Your task to perform on an android device: Search for vegetarian restaurants on Maps Image 0: 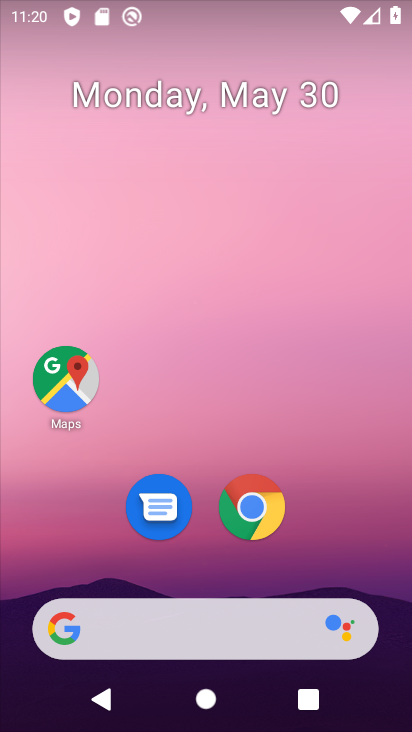
Step 0: click (52, 379)
Your task to perform on an android device: Search for vegetarian restaurants on Maps Image 1: 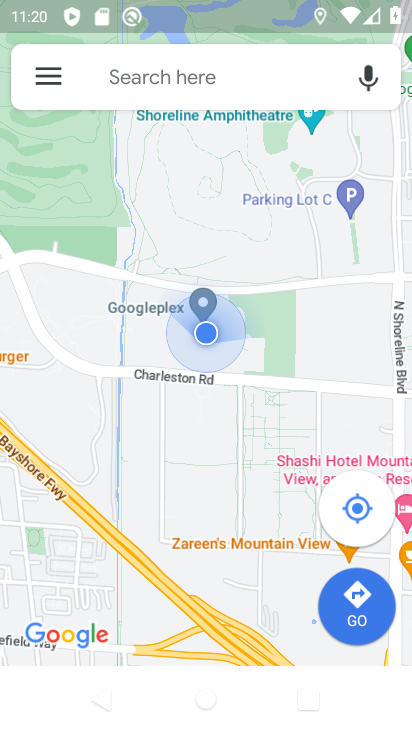
Step 1: type "vegetarian restaurants"
Your task to perform on an android device: Search for vegetarian restaurants on Maps Image 2: 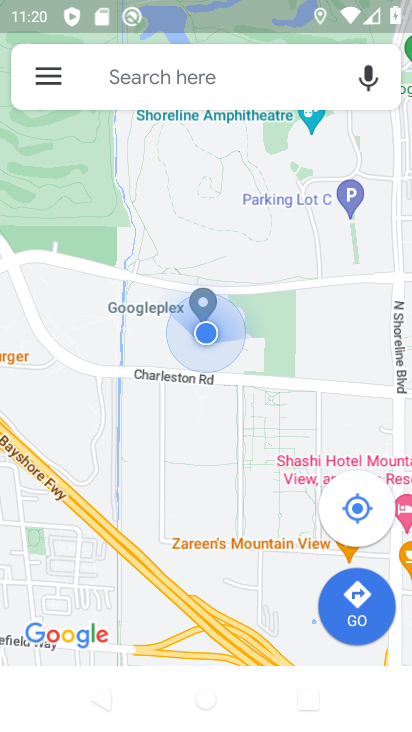
Step 2: click (217, 70)
Your task to perform on an android device: Search for vegetarian restaurants on Maps Image 3: 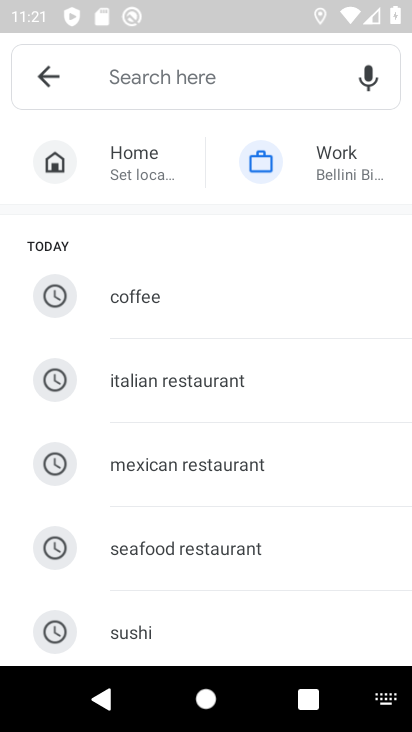
Step 3: type "vegetarian restaurants"
Your task to perform on an android device: Search for vegetarian restaurants on Maps Image 4: 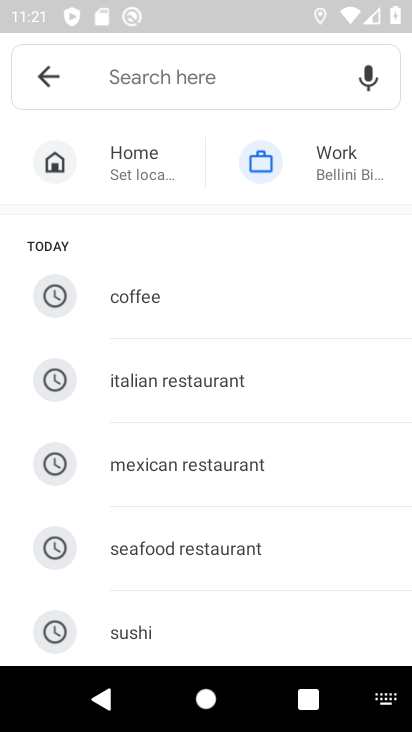
Step 4: click (179, 73)
Your task to perform on an android device: Search for vegetarian restaurants on Maps Image 5: 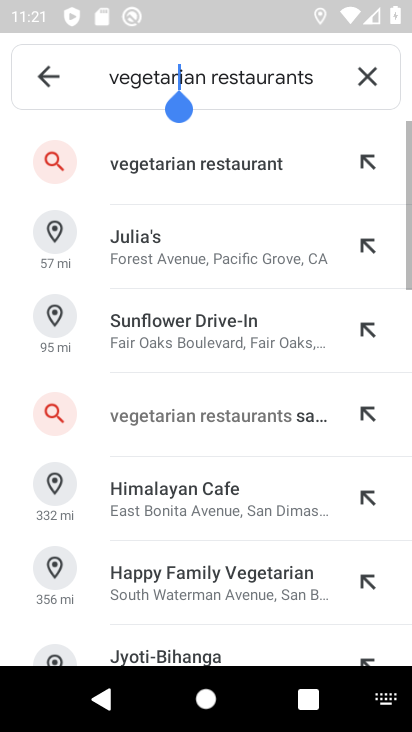
Step 5: click (187, 162)
Your task to perform on an android device: Search for vegetarian restaurants on Maps Image 6: 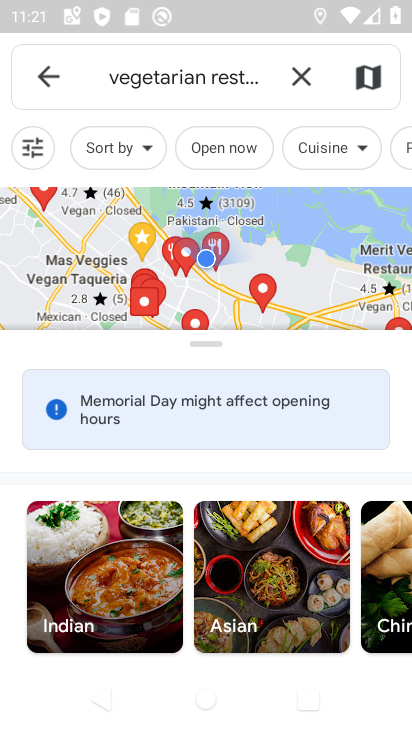
Step 6: task complete